Your task to perform on an android device: Open the map Image 0: 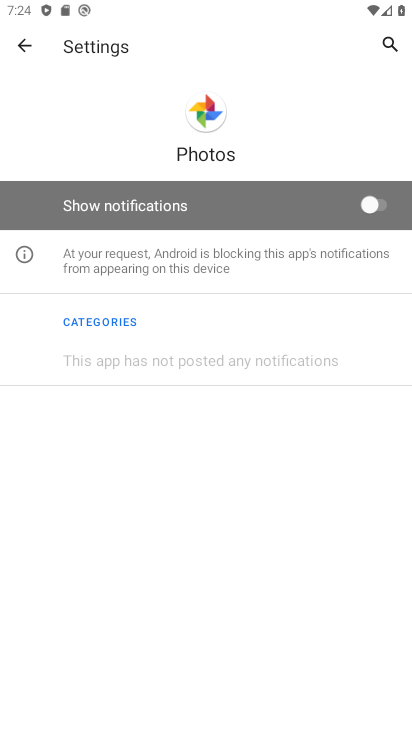
Step 0: press home button
Your task to perform on an android device: Open the map Image 1: 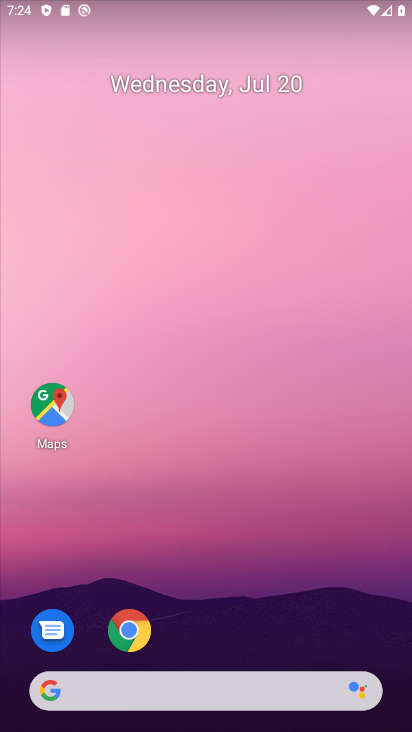
Step 1: click (52, 407)
Your task to perform on an android device: Open the map Image 2: 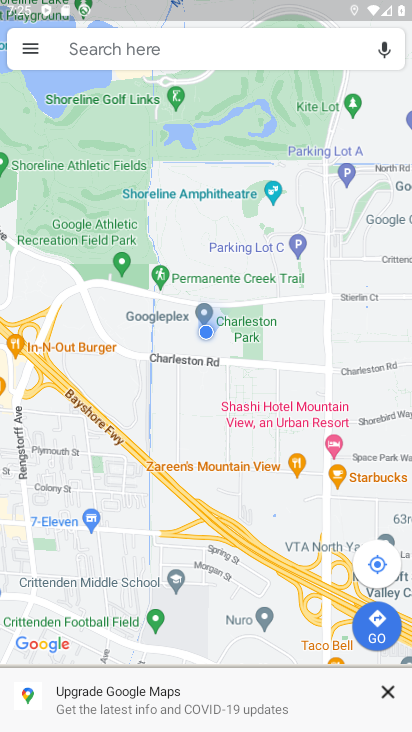
Step 2: task complete